Your task to perform on an android device: Open Android settings Image 0: 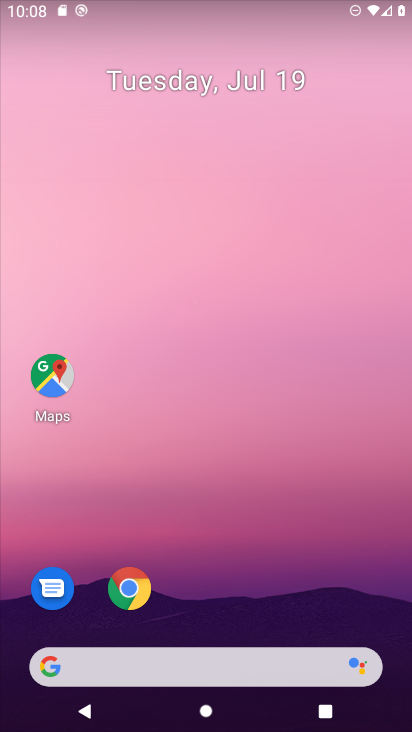
Step 0: drag from (235, 597) to (180, 344)
Your task to perform on an android device: Open Android settings Image 1: 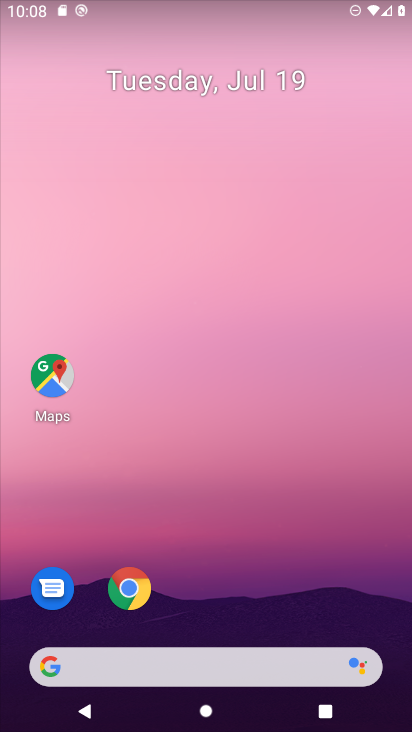
Step 1: drag from (266, 555) to (229, 56)
Your task to perform on an android device: Open Android settings Image 2: 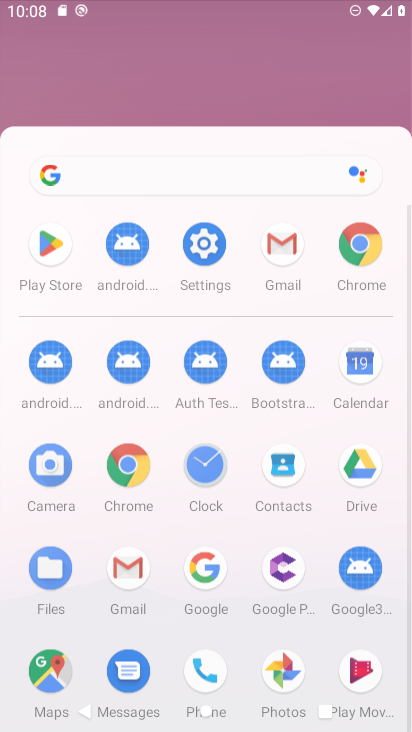
Step 2: drag from (228, 554) to (196, 153)
Your task to perform on an android device: Open Android settings Image 3: 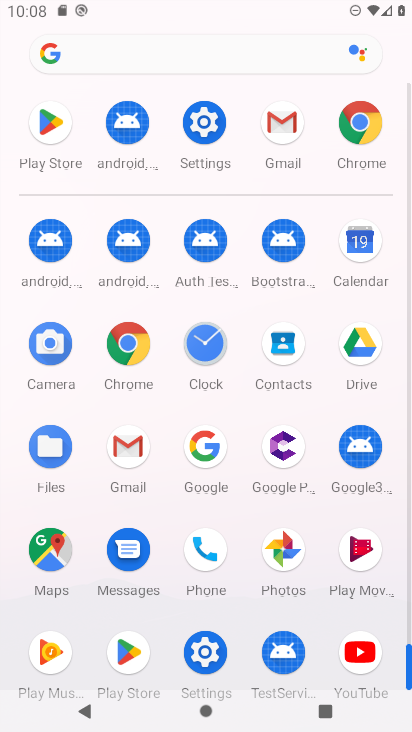
Step 3: click (201, 134)
Your task to perform on an android device: Open Android settings Image 4: 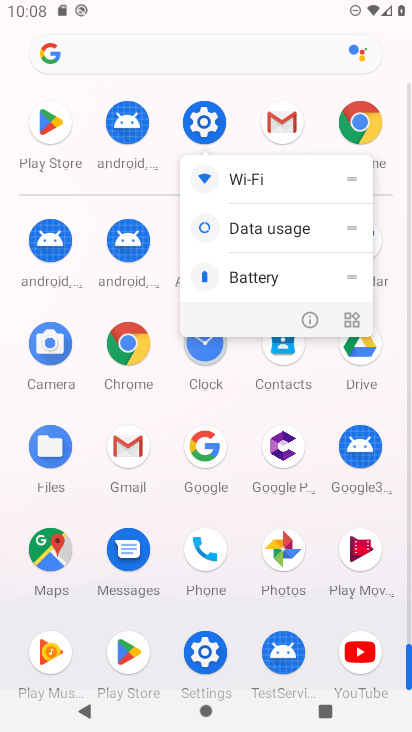
Step 4: click (204, 113)
Your task to perform on an android device: Open Android settings Image 5: 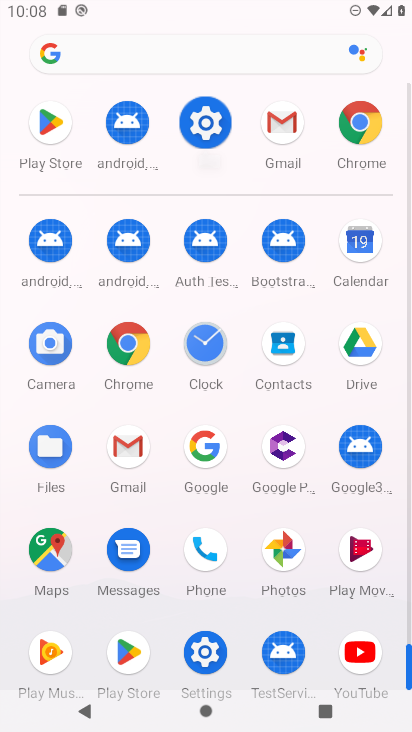
Step 5: click (204, 113)
Your task to perform on an android device: Open Android settings Image 6: 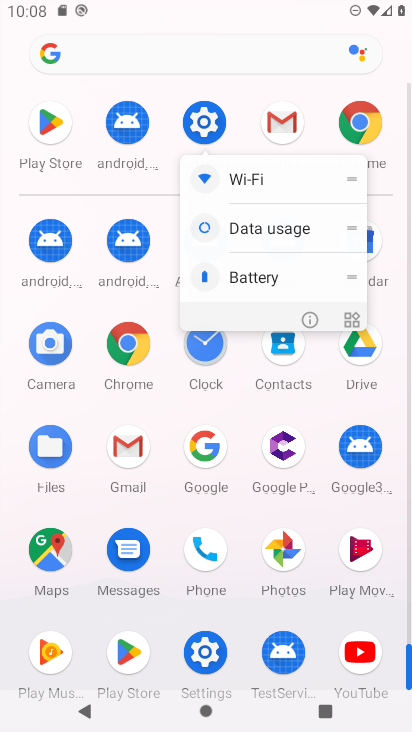
Step 6: click (203, 113)
Your task to perform on an android device: Open Android settings Image 7: 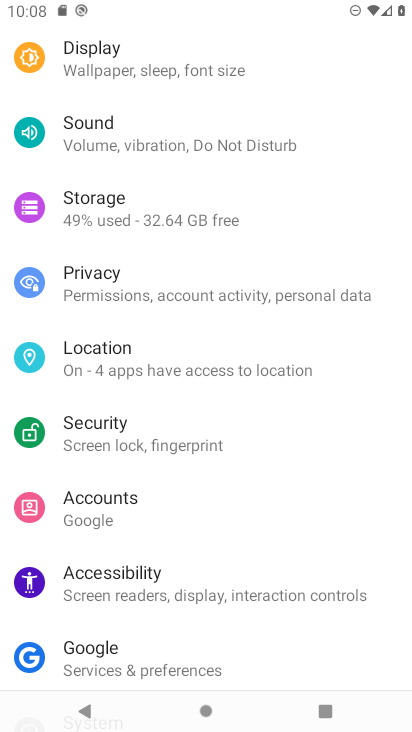
Step 7: drag from (171, 559) to (146, 235)
Your task to perform on an android device: Open Android settings Image 8: 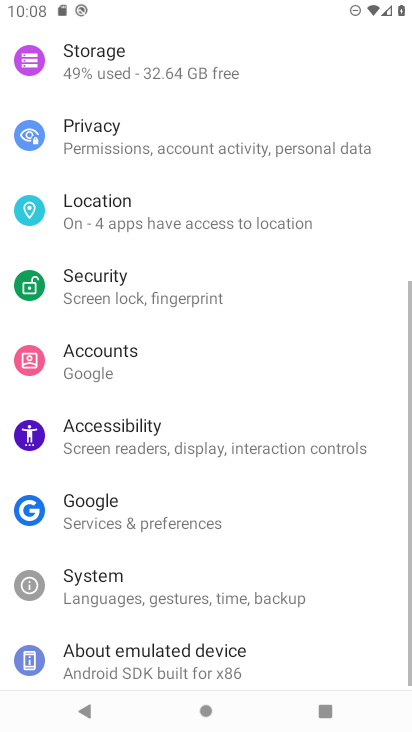
Step 8: drag from (161, 474) to (165, 226)
Your task to perform on an android device: Open Android settings Image 9: 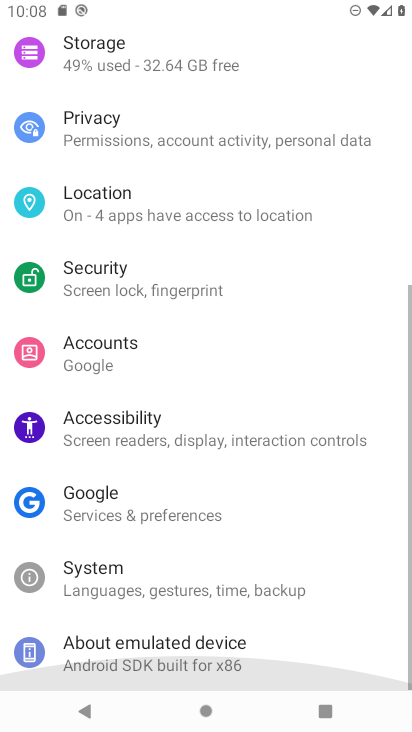
Step 9: drag from (173, 522) to (187, 251)
Your task to perform on an android device: Open Android settings Image 10: 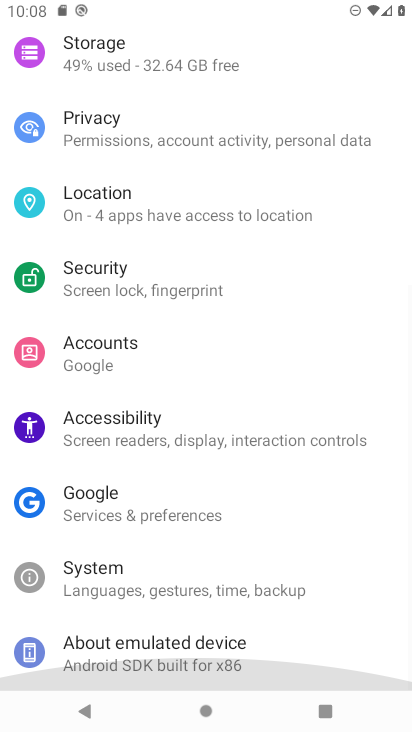
Step 10: click (175, 553)
Your task to perform on an android device: Open Android settings Image 11: 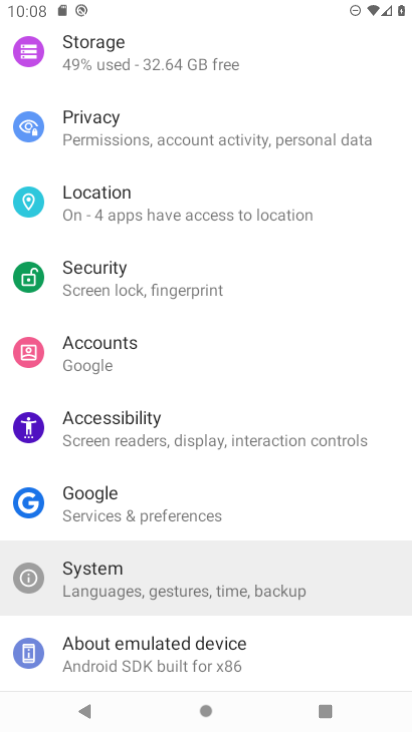
Step 11: click (129, 642)
Your task to perform on an android device: Open Android settings Image 12: 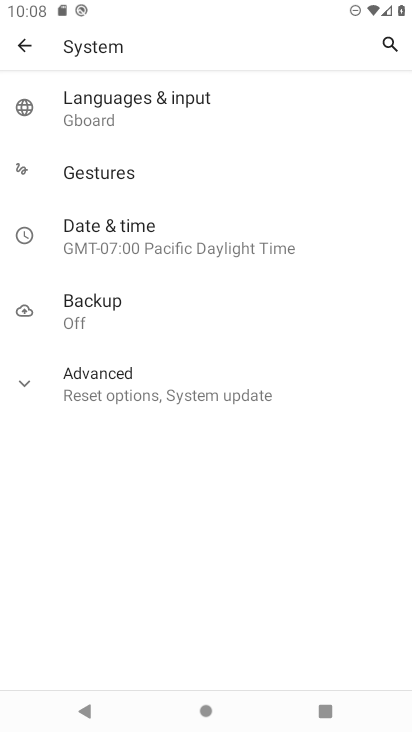
Step 12: click (129, 642)
Your task to perform on an android device: Open Android settings Image 13: 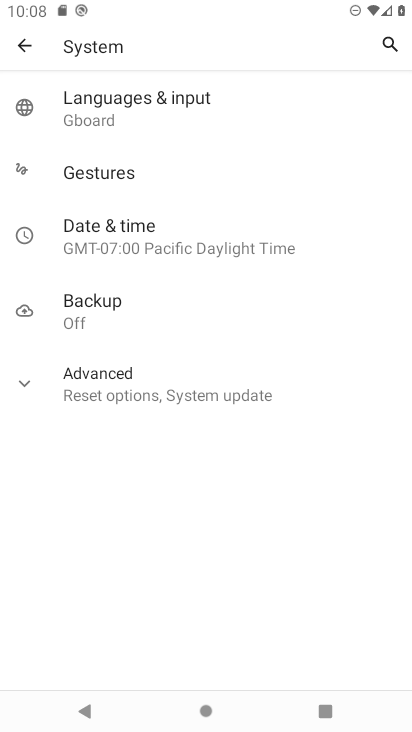
Step 13: click (31, 50)
Your task to perform on an android device: Open Android settings Image 14: 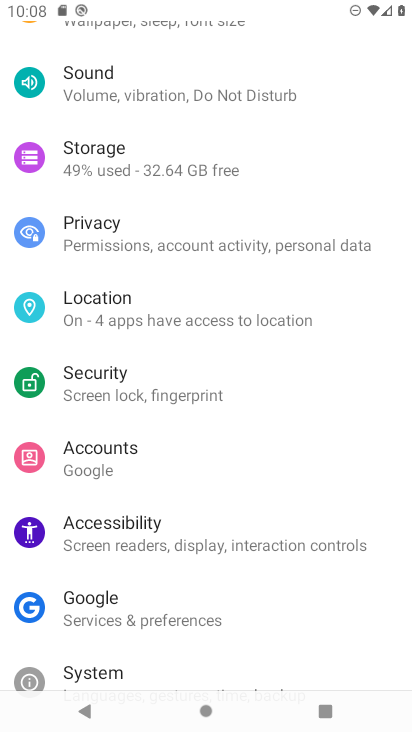
Step 14: click (178, 210)
Your task to perform on an android device: Open Android settings Image 15: 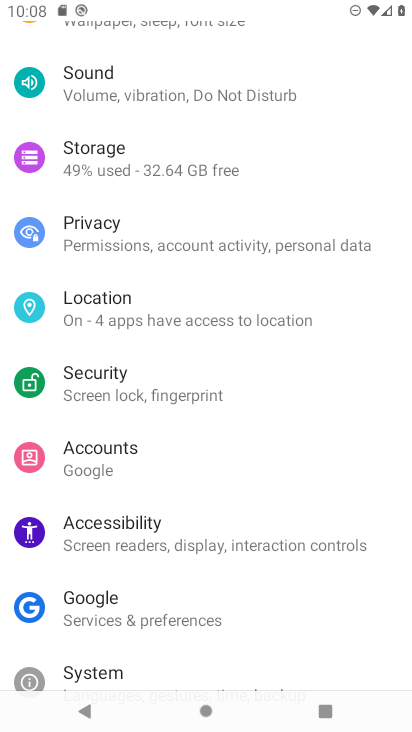
Step 15: drag from (119, 414) to (127, 259)
Your task to perform on an android device: Open Android settings Image 16: 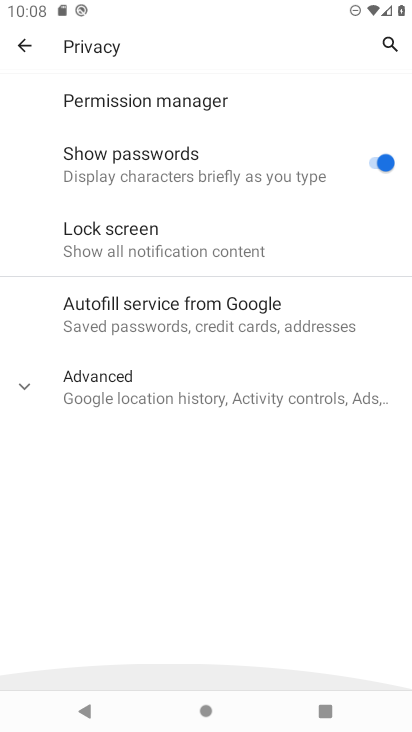
Step 16: drag from (159, 524) to (150, 232)
Your task to perform on an android device: Open Android settings Image 17: 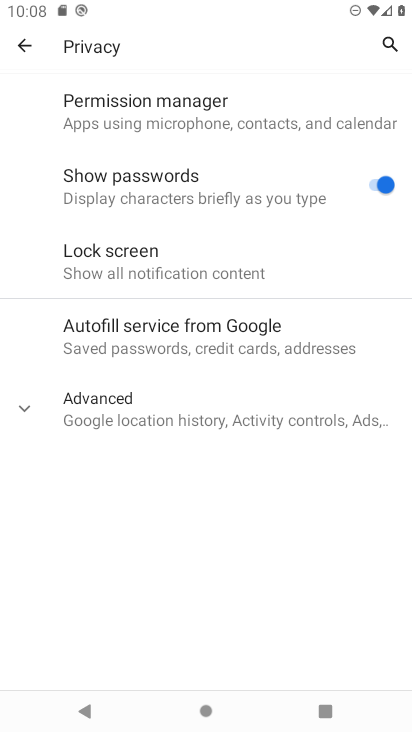
Step 17: click (26, 31)
Your task to perform on an android device: Open Android settings Image 18: 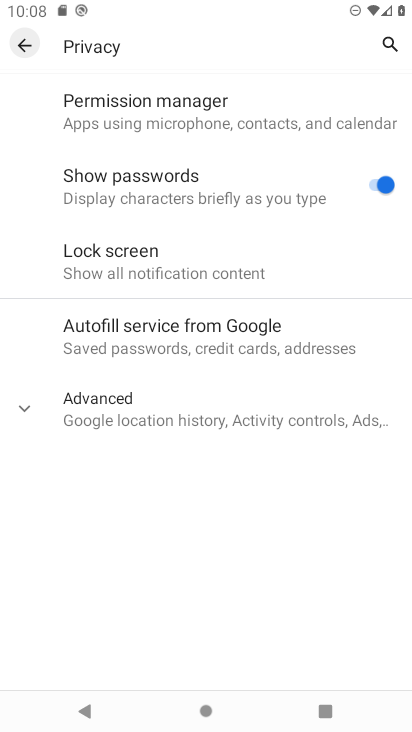
Step 18: click (26, 33)
Your task to perform on an android device: Open Android settings Image 19: 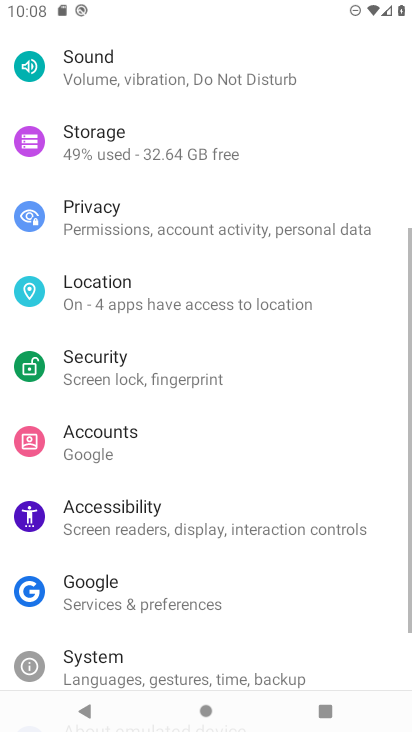
Step 19: drag from (115, 591) to (92, 208)
Your task to perform on an android device: Open Android settings Image 20: 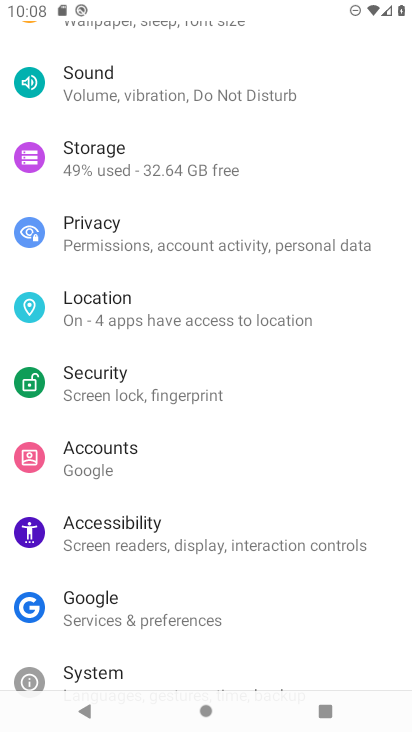
Step 20: drag from (150, 595) to (139, 174)
Your task to perform on an android device: Open Android settings Image 21: 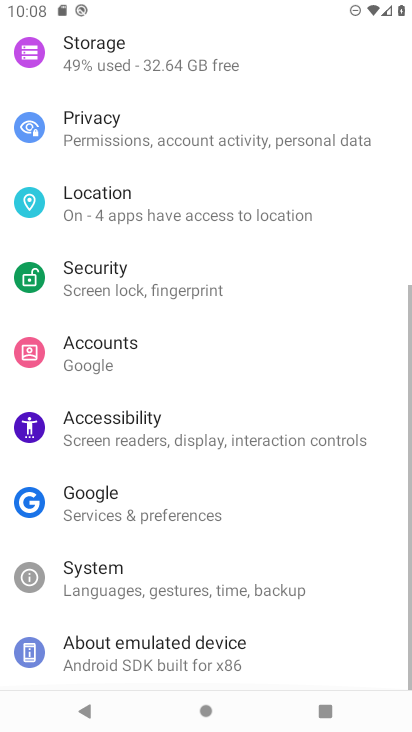
Step 21: drag from (183, 522) to (179, 275)
Your task to perform on an android device: Open Android settings Image 22: 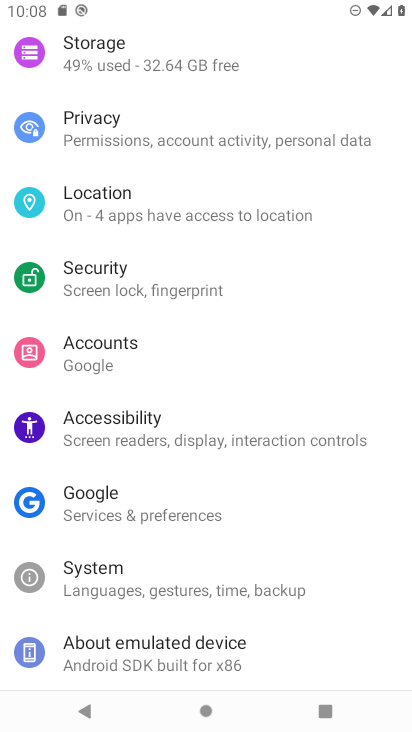
Step 22: click (151, 663)
Your task to perform on an android device: Open Android settings Image 23: 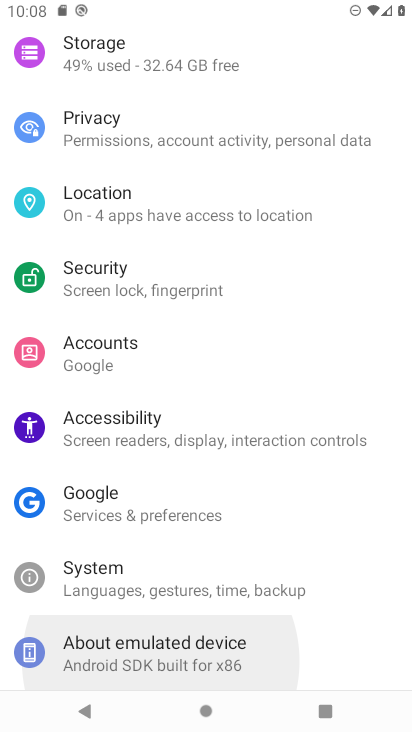
Step 23: click (158, 658)
Your task to perform on an android device: Open Android settings Image 24: 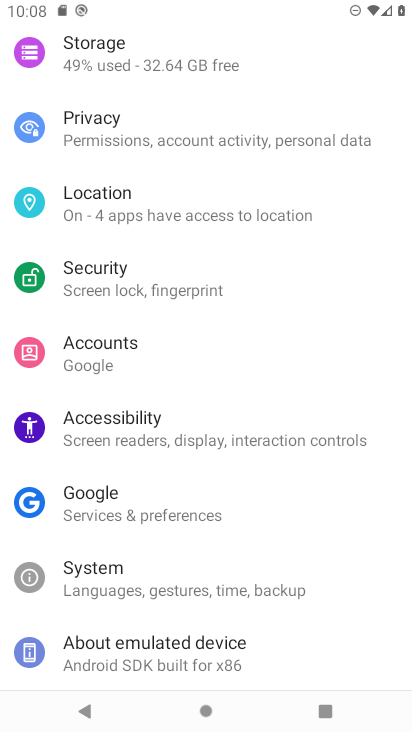
Step 24: click (159, 657)
Your task to perform on an android device: Open Android settings Image 25: 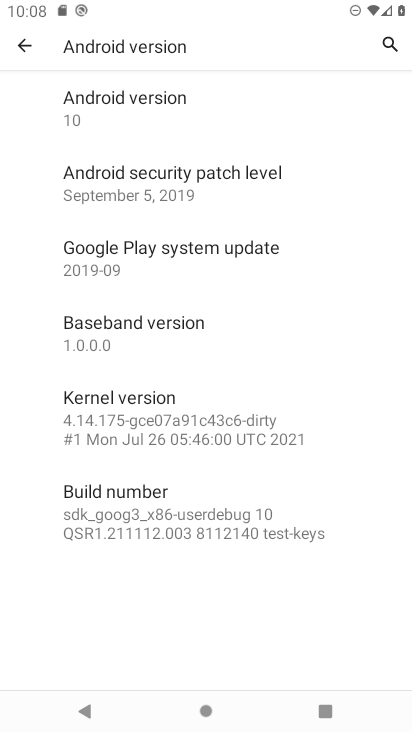
Step 25: task complete